Your task to perform on an android device: Check the news Image 0: 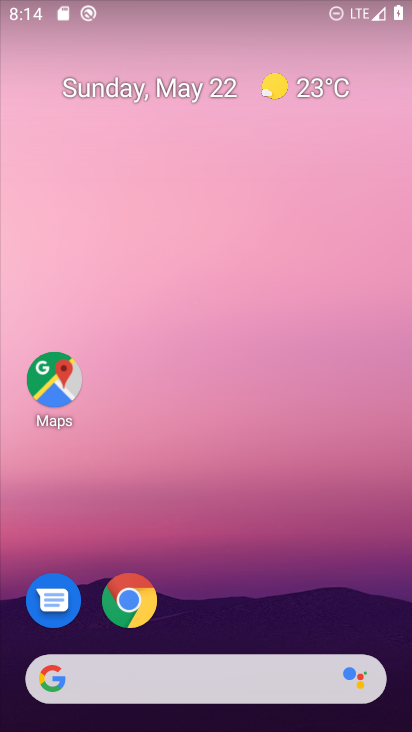
Step 0: drag from (341, 615) to (400, 476)
Your task to perform on an android device: Check the news Image 1: 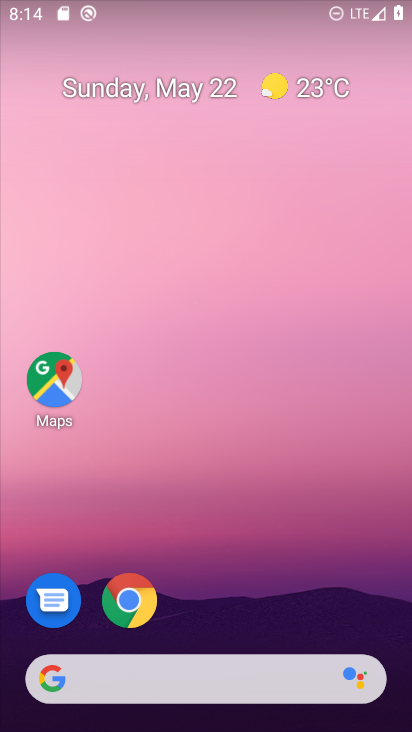
Step 1: drag from (386, 618) to (253, 13)
Your task to perform on an android device: Check the news Image 2: 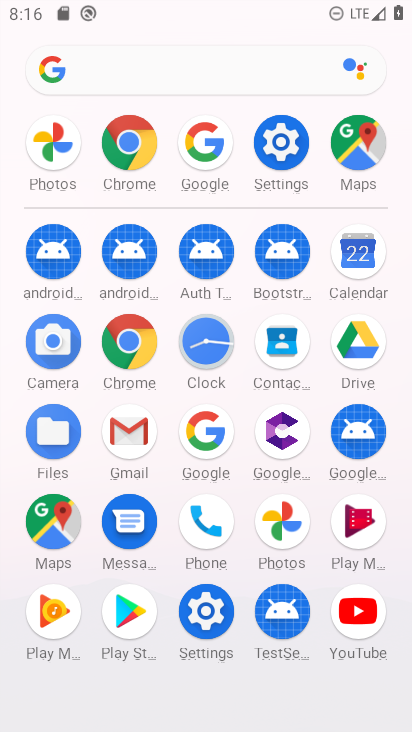
Step 2: click (214, 421)
Your task to perform on an android device: Check the news Image 3: 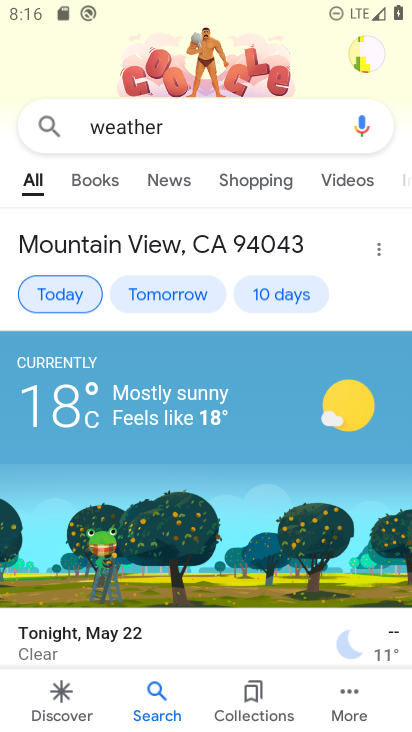
Step 3: press back button
Your task to perform on an android device: Check the news Image 4: 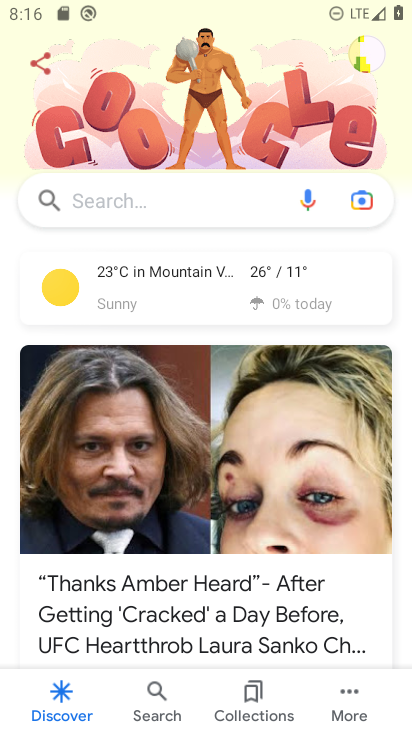
Step 4: click (141, 196)
Your task to perform on an android device: Check the news Image 5: 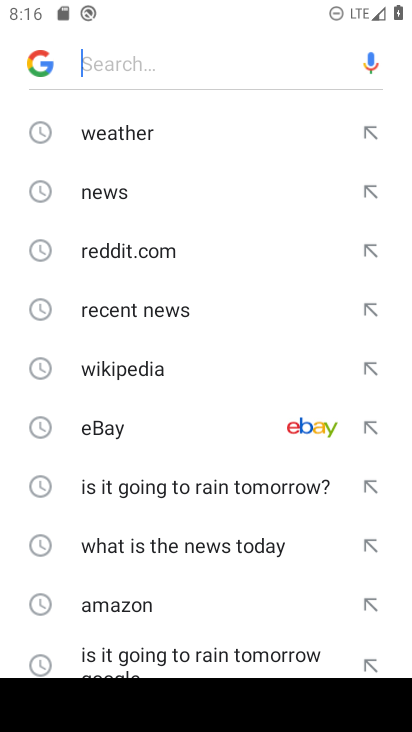
Step 5: click (141, 196)
Your task to perform on an android device: Check the news Image 6: 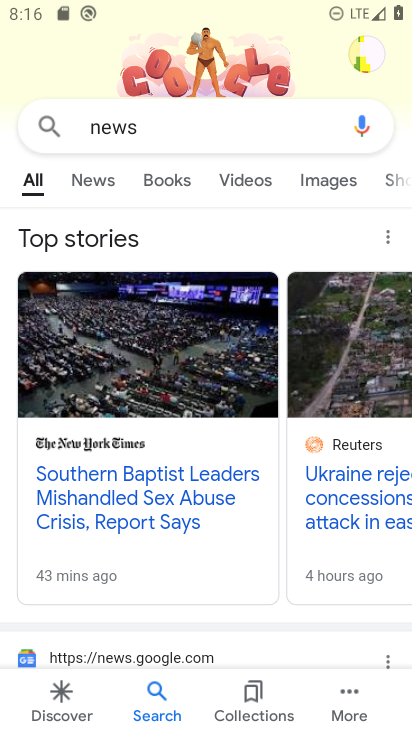
Step 6: task complete